Your task to perform on an android device: turn off sleep mode Image 0: 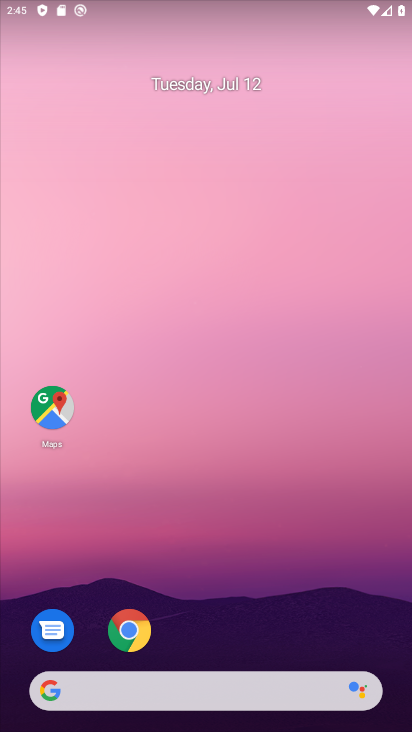
Step 0: drag from (304, 0) to (208, 31)
Your task to perform on an android device: turn off sleep mode Image 1: 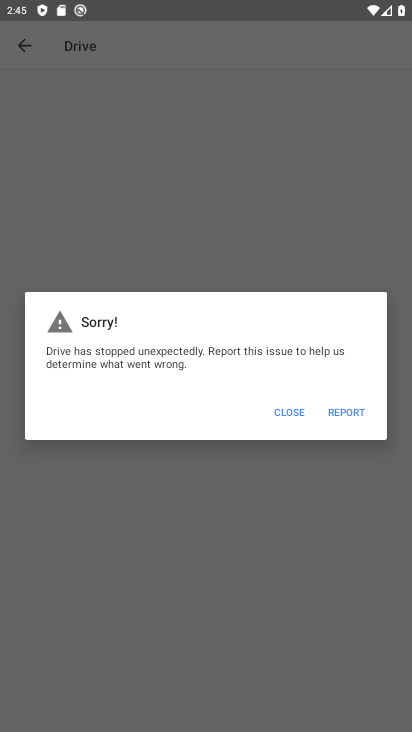
Step 1: press home button
Your task to perform on an android device: turn off sleep mode Image 2: 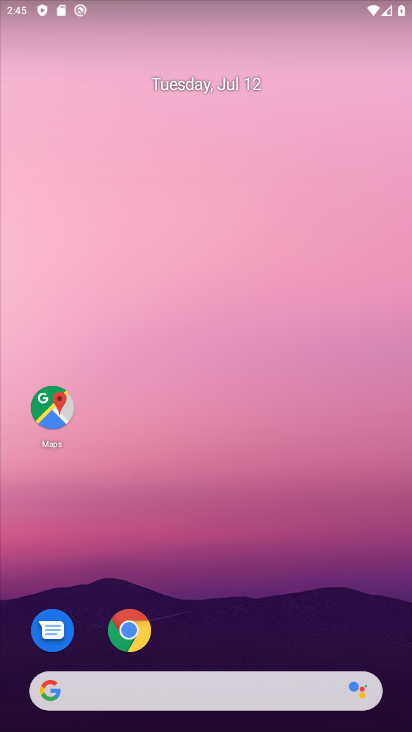
Step 2: drag from (250, 632) to (245, 20)
Your task to perform on an android device: turn off sleep mode Image 3: 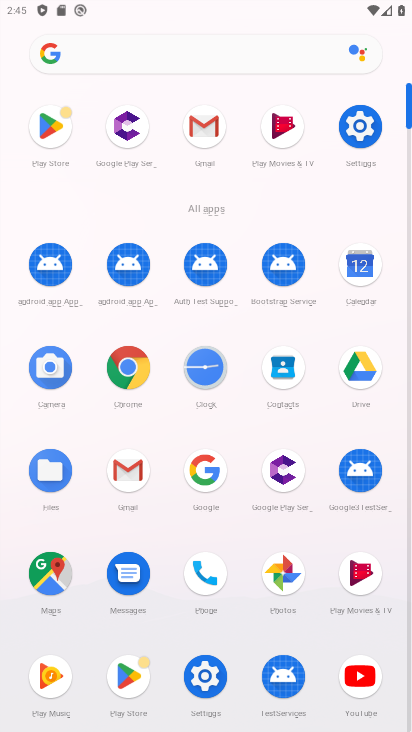
Step 3: click (361, 139)
Your task to perform on an android device: turn off sleep mode Image 4: 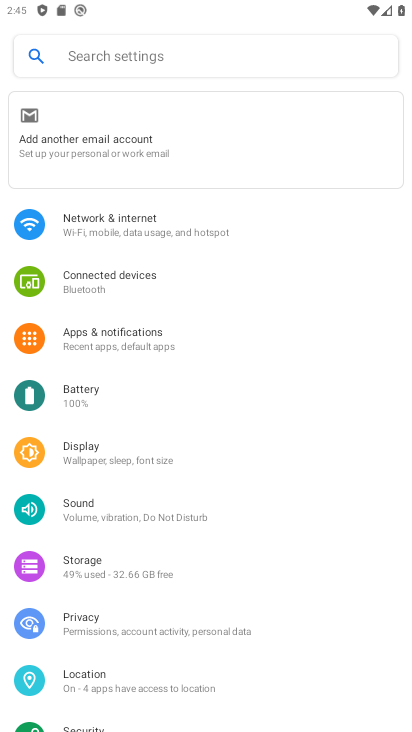
Step 4: click (194, 45)
Your task to perform on an android device: turn off sleep mode Image 5: 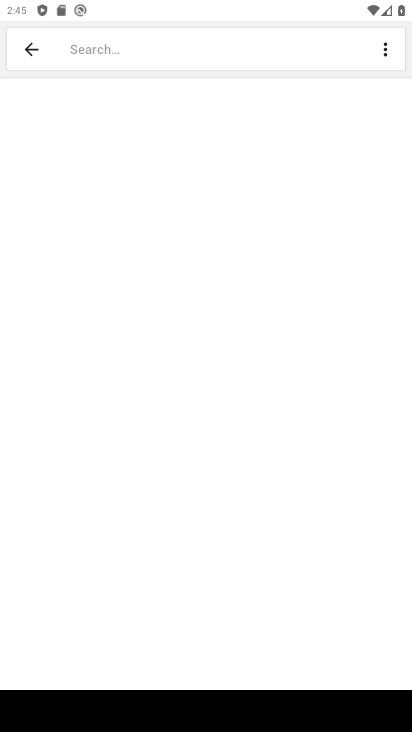
Step 5: type "sleep mode"
Your task to perform on an android device: turn off sleep mode Image 6: 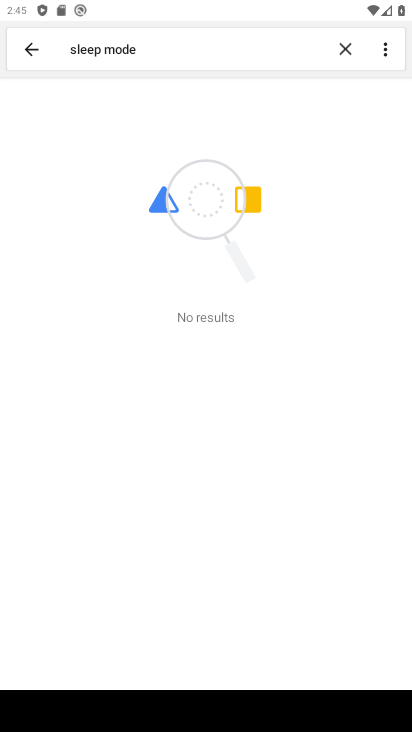
Step 6: task complete